Your task to perform on an android device: change text size in settings app Image 0: 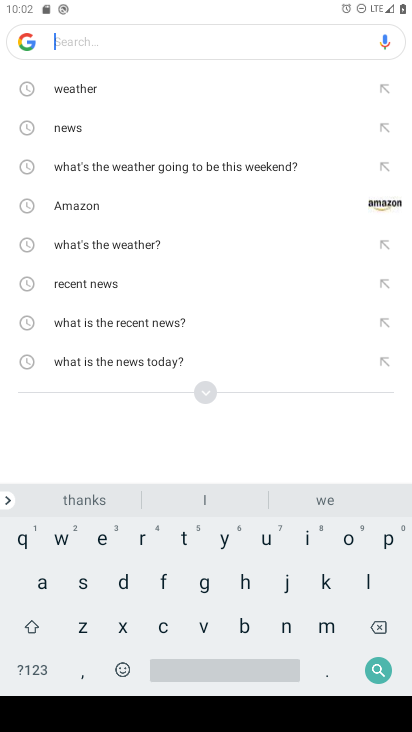
Step 0: press home button
Your task to perform on an android device: change text size in settings app Image 1: 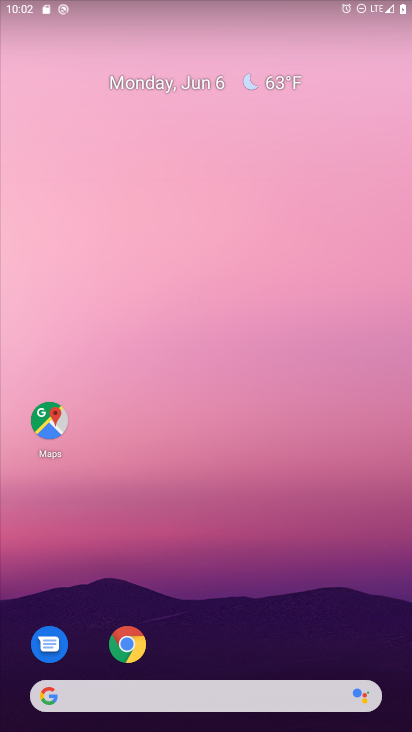
Step 1: drag from (215, 717) to (190, 132)
Your task to perform on an android device: change text size in settings app Image 2: 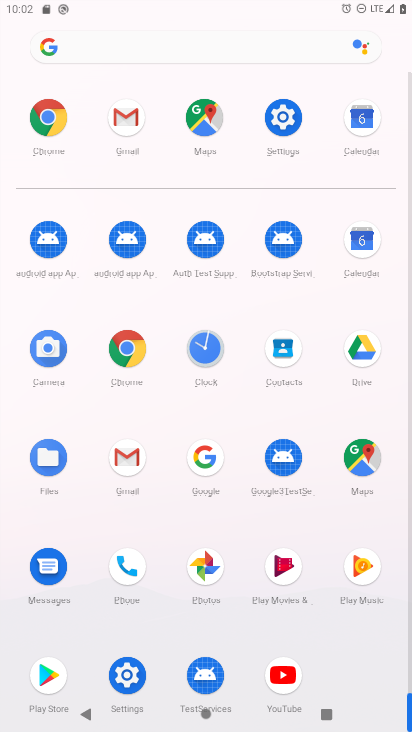
Step 2: click (261, 122)
Your task to perform on an android device: change text size in settings app Image 3: 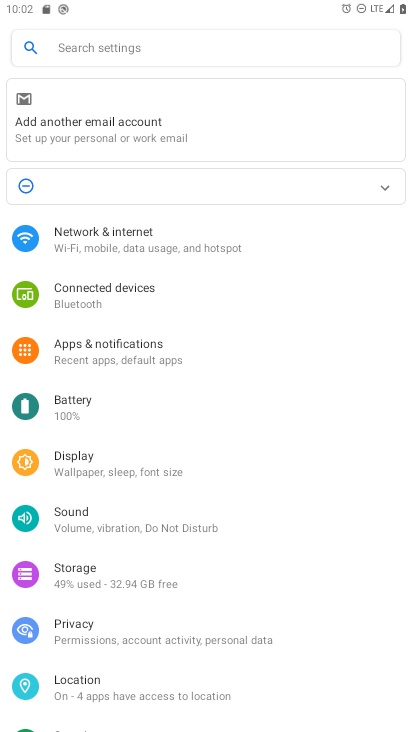
Step 3: click (114, 43)
Your task to perform on an android device: change text size in settings app Image 4: 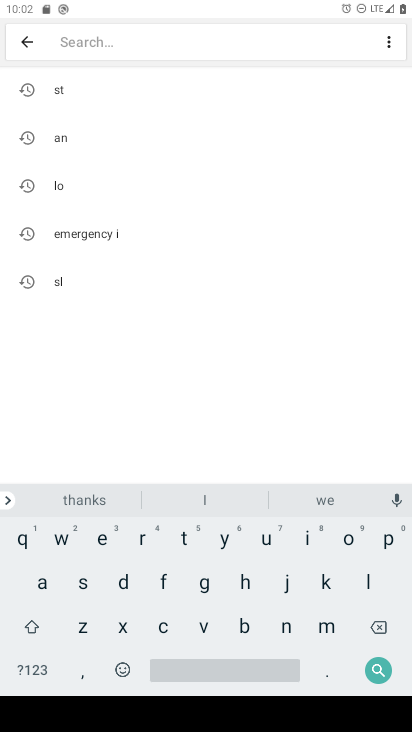
Step 4: click (80, 578)
Your task to perform on an android device: change text size in settings app Image 5: 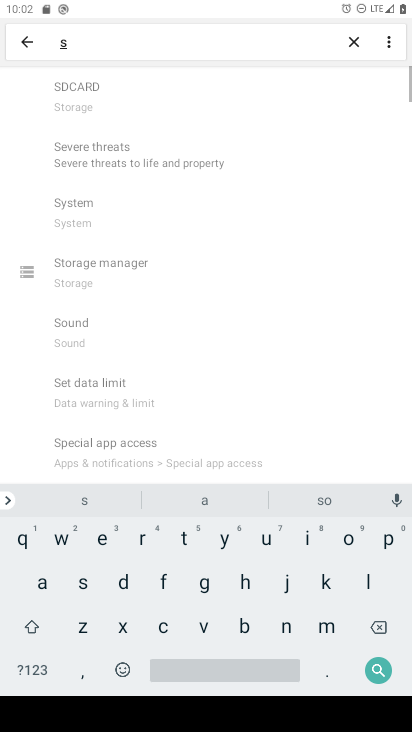
Step 5: click (299, 537)
Your task to perform on an android device: change text size in settings app Image 6: 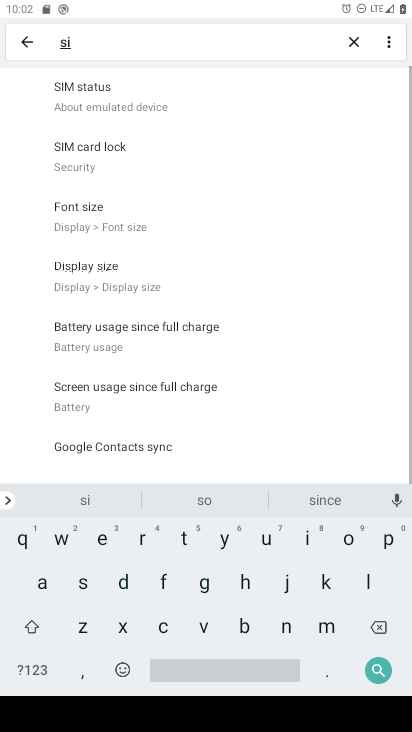
Step 6: click (81, 623)
Your task to perform on an android device: change text size in settings app Image 7: 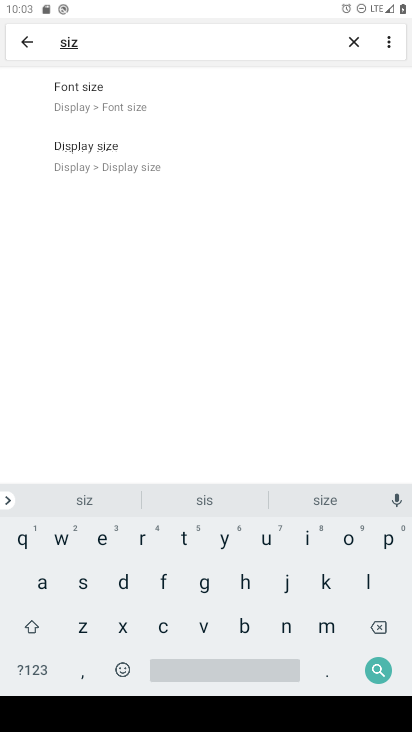
Step 7: click (137, 96)
Your task to perform on an android device: change text size in settings app Image 8: 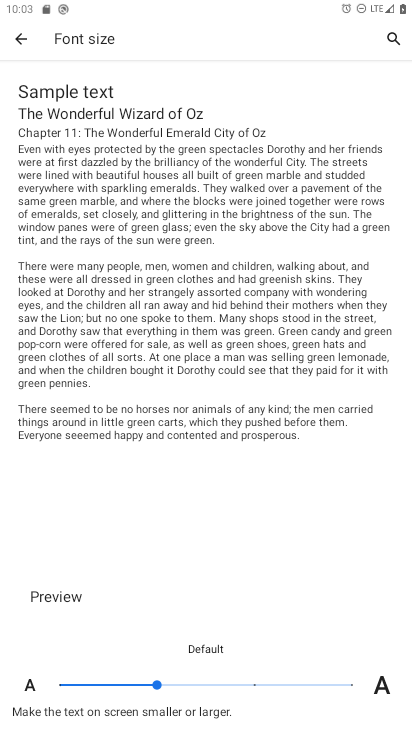
Step 8: click (223, 681)
Your task to perform on an android device: change text size in settings app Image 9: 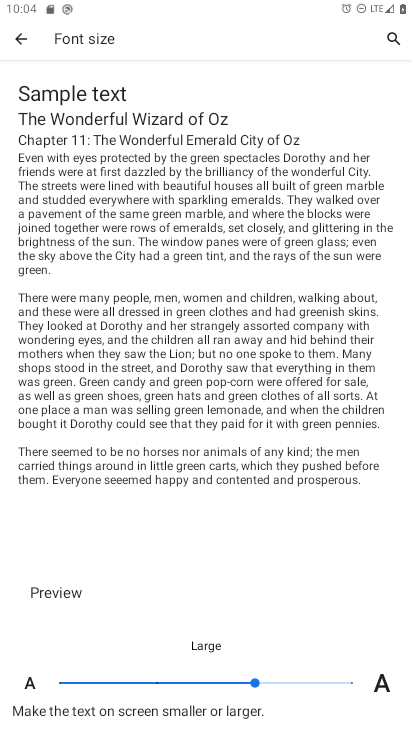
Step 9: task complete